Your task to perform on an android device: turn off notifications in google photos Image 0: 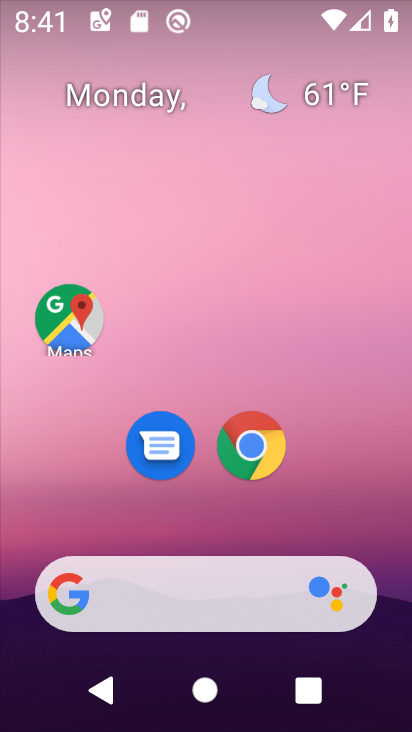
Step 0: press home button
Your task to perform on an android device: turn off notifications in google photos Image 1: 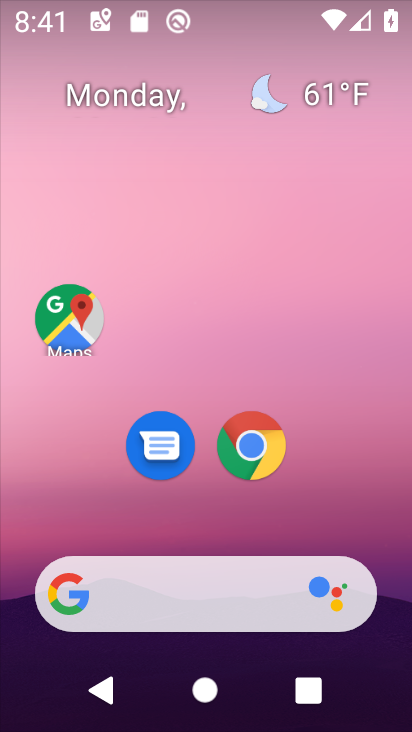
Step 1: drag from (221, 522) to (99, 3)
Your task to perform on an android device: turn off notifications in google photos Image 2: 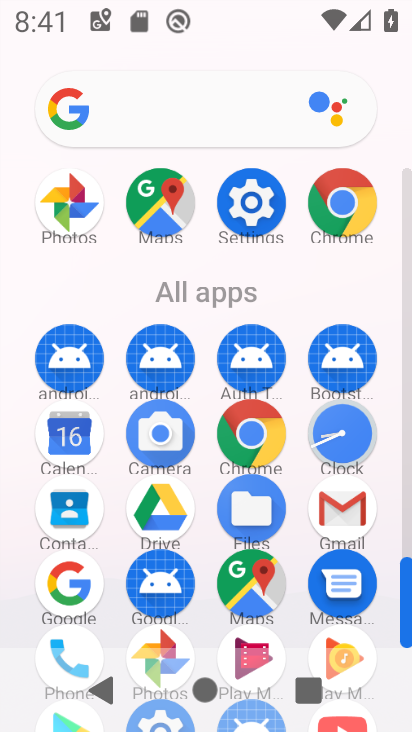
Step 2: drag from (201, 600) to (215, 184)
Your task to perform on an android device: turn off notifications in google photos Image 3: 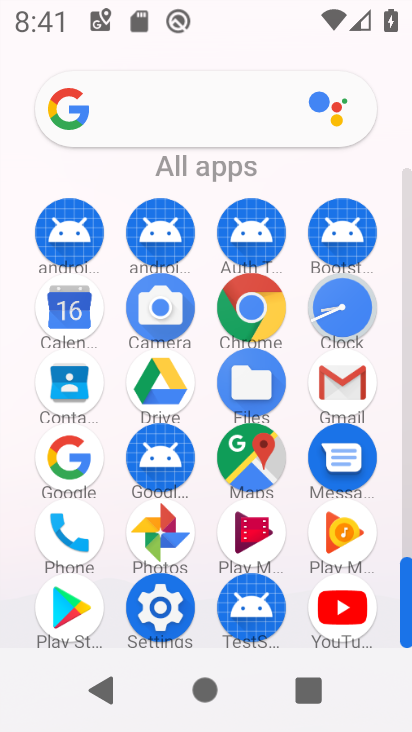
Step 3: click (159, 525)
Your task to perform on an android device: turn off notifications in google photos Image 4: 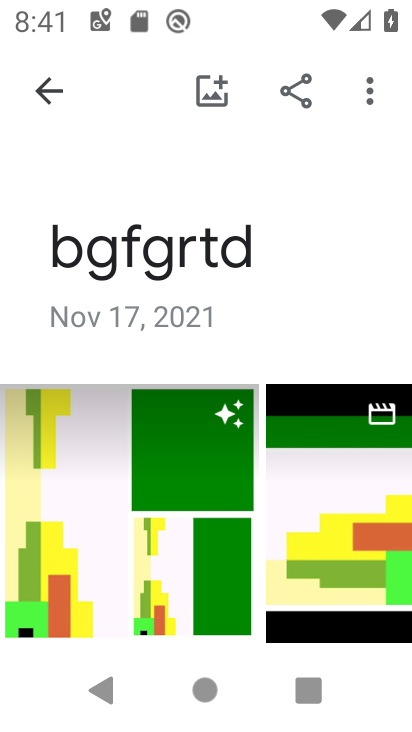
Step 4: click (58, 94)
Your task to perform on an android device: turn off notifications in google photos Image 5: 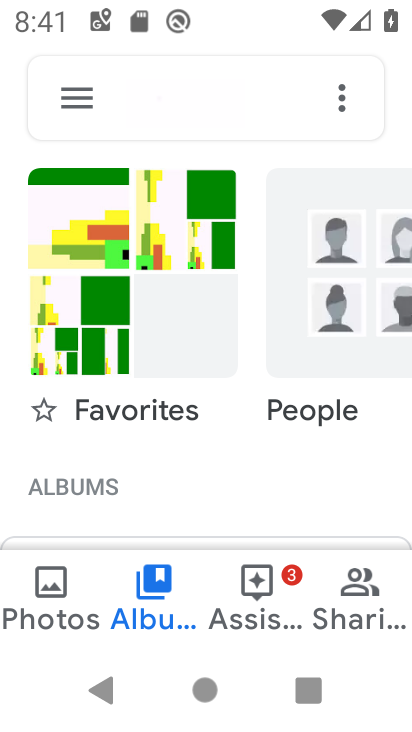
Step 5: click (72, 106)
Your task to perform on an android device: turn off notifications in google photos Image 6: 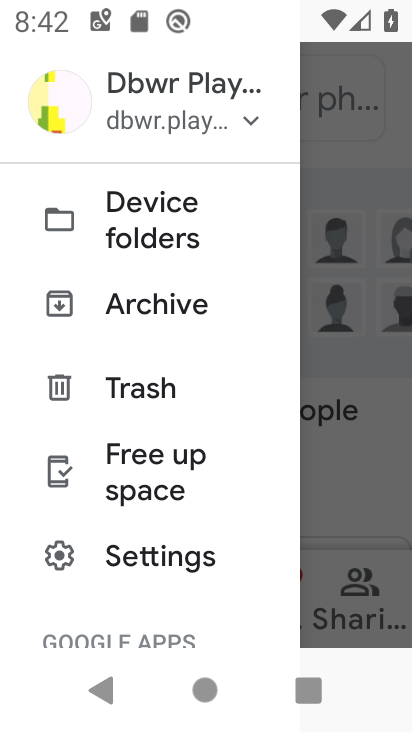
Step 6: click (86, 549)
Your task to perform on an android device: turn off notifications in google photos Image 7: 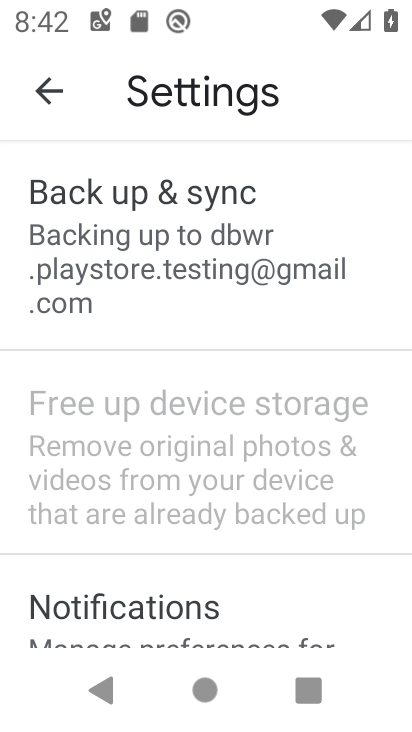
Step 7: click (234, 608)
Your task to perform on an android device: turn off notifications in google photos Image 8: 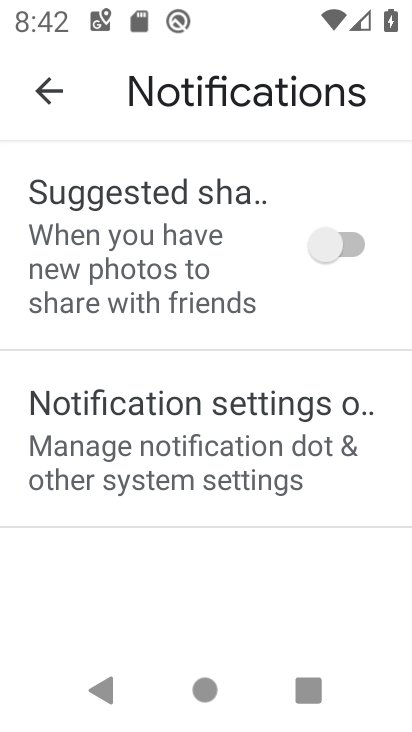
Step 8: click (203, 494)
Your task to perform on an android device: turn off notifications in google photos Image 9: 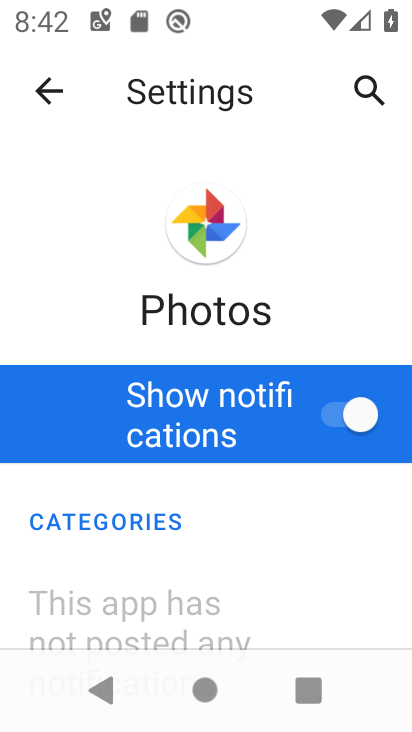
Step 9: click (340, 413)
Your task to perform on an android device: turn off notifications in google photos Image 10: 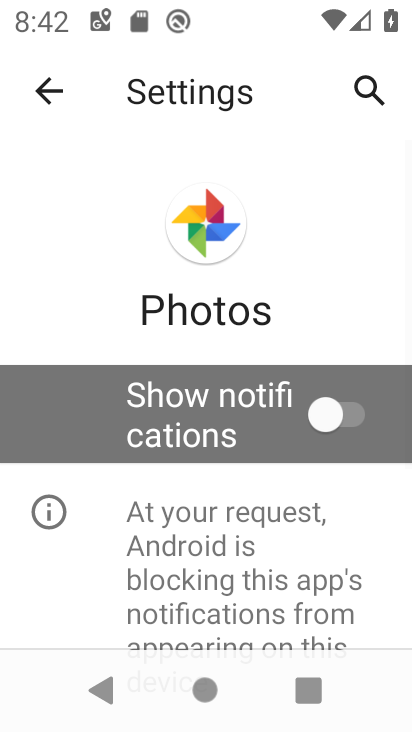
Step 10: task complete